Your task to perform on an android device: Go to Amazon Image 0: 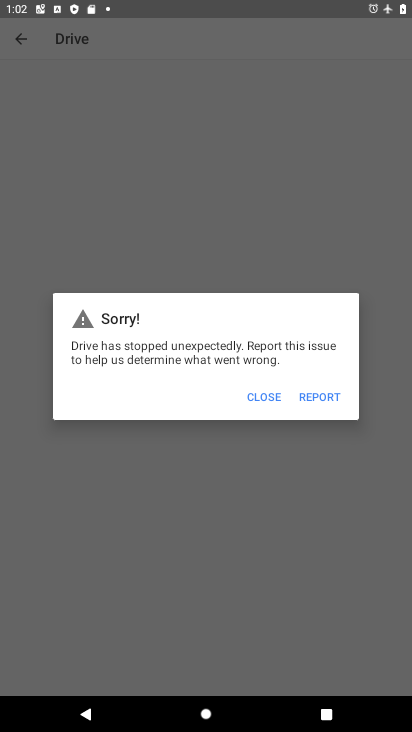
Step 0: press home button
Your task to perform on an android device: Go to Amazon Image 1: 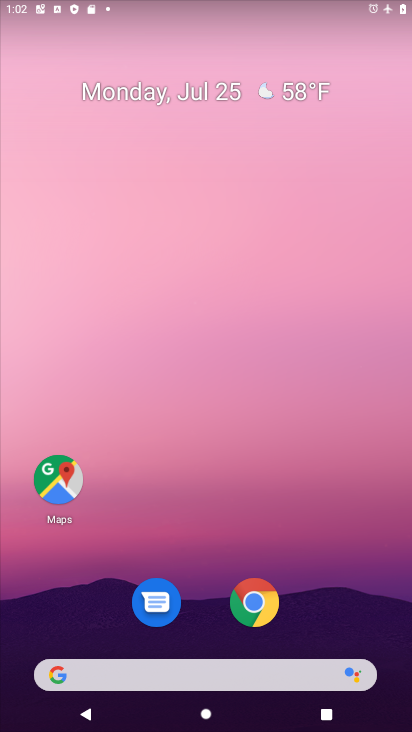
Step 1: click (244, 606)
Your task to perform on an android device: Go to Amazon Image 2: 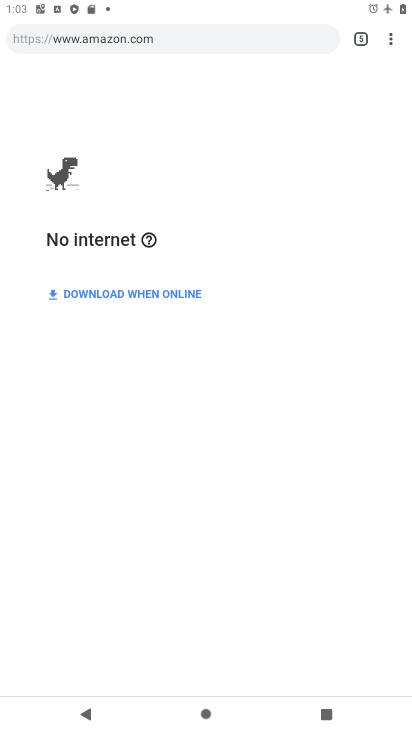
Step 2: press home button
Your task to perform on an android device: Go to Amazon Image 3: 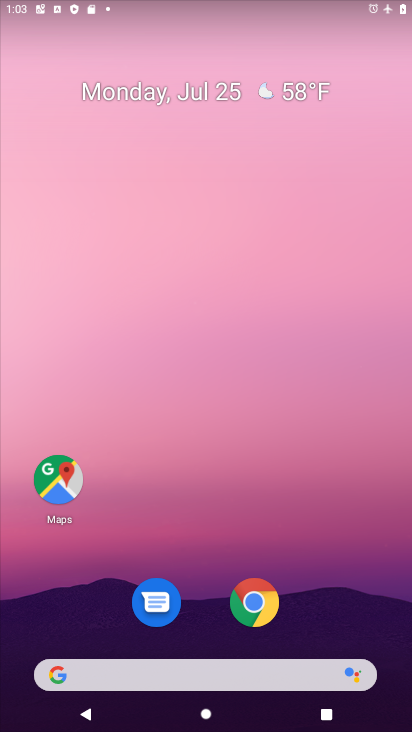
Step 3: click (245, 612)
Your task to perform on an android device: Go to Amazon Image 4: 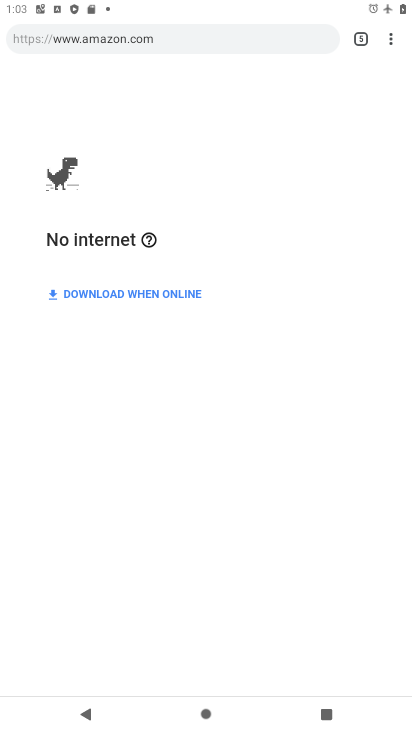
Step 4: click (369, 42)
Your task to perform on an android device: Go to Amazon Image 5: 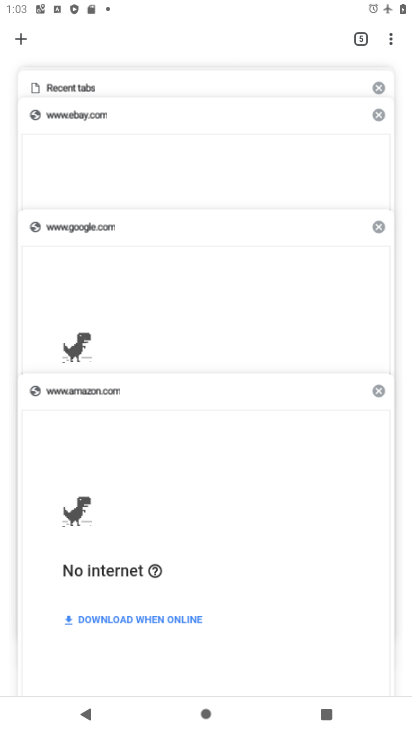
Step 5: click (23, 34)
Your task to perform on an android device: Go to Amazon Image 6: 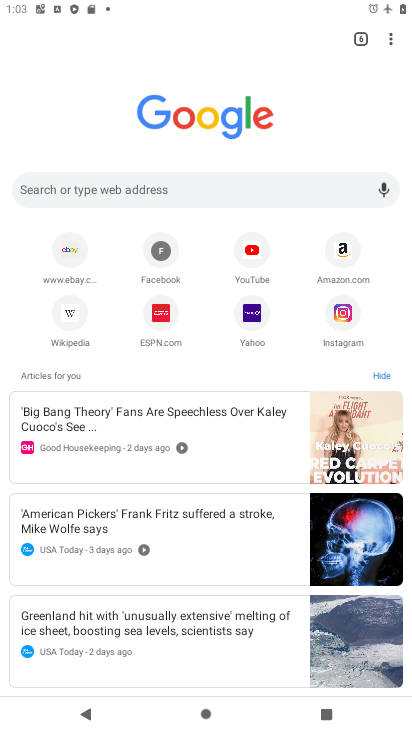
Step 6: click (339, 262)
Your task to perform on an android device: Go to Amazon Image 7: 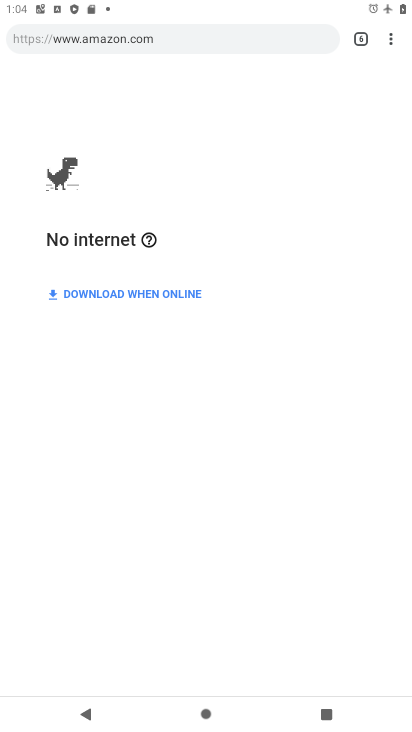
Step 7: task complete